Your task to perform on an android device: open the mobile data screen to see how much data has been used Image 0: 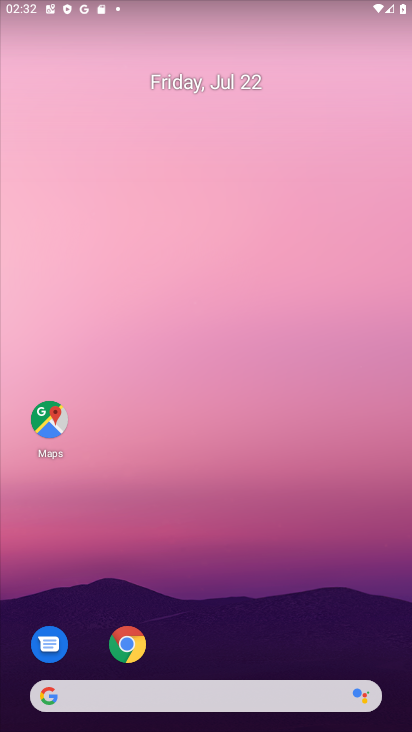
Step 0: drag from (213, 634) to (192, 31)
Your task to perform on an android device: open the mobile data screen to see how much data has been used Image 1: 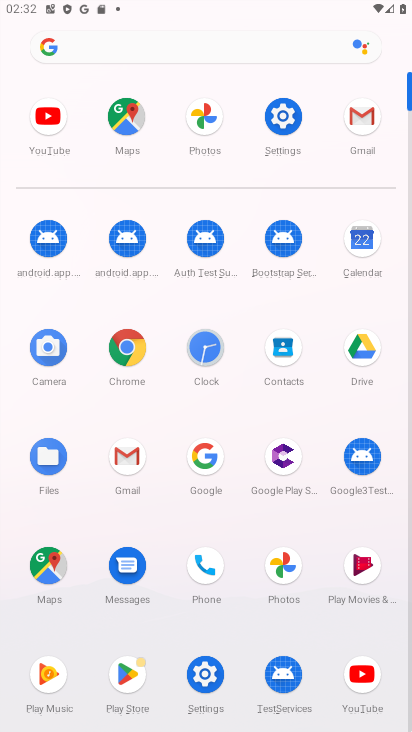
Step 1: click (281, 127)
Your task to perform on an android device: open the mobile data screen to see how much data has been used Image 2: 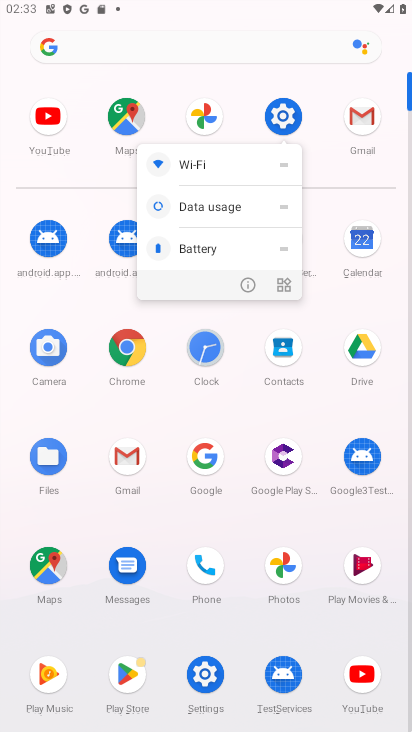
Step 2: click (292, 115)
Your task to perform on an android device: open the mobile data screen to see how much data has been used Image 3: 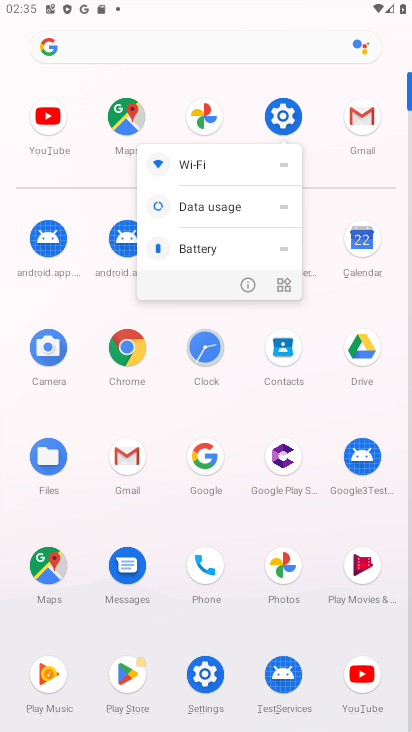
Step 3: click (277, 119)
Your task to perform on an android device: open the mobile data screen to see how much data has been used Image 4: 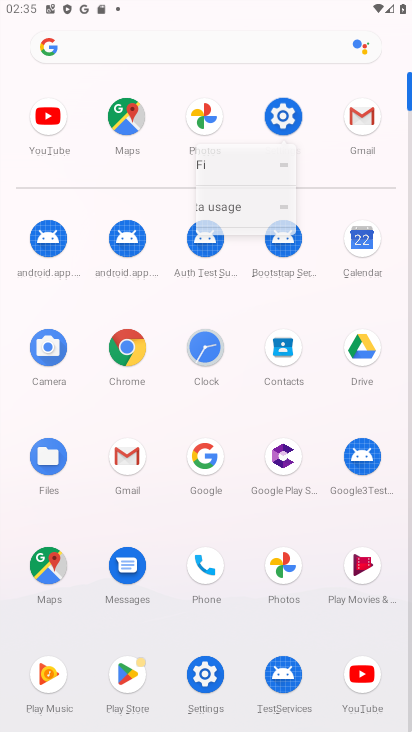
Step 4: click (277, 119)
Your task to perform on an android device: open the mobile data screen to see how much data has been used Image 5: 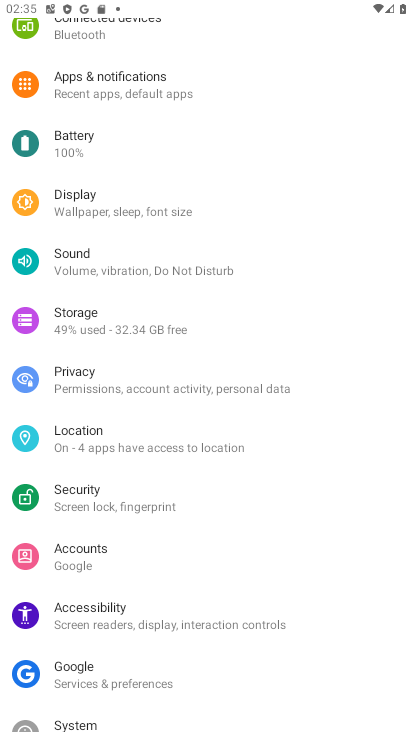
Step 5: drag from (276, 115) to (335, 366)
Your task to perform on an android device: open the mobile data screen to see how much data has been used Image 6: 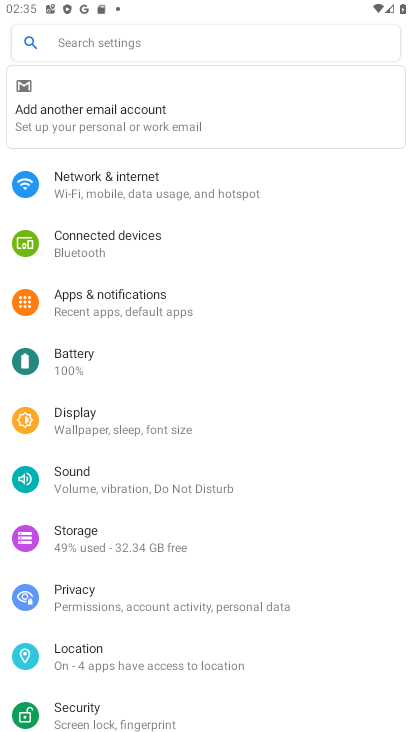
Step 6: click (228, 180)
Your task to perform on an android device: open the mobile data screen to see how much data has been used Image 7: 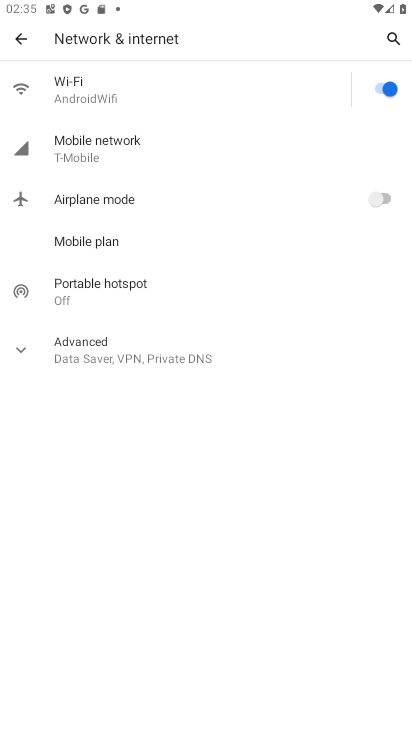
Step 7: click (130, 154)
Your task to perform on an android device: open the mobile data screen to see how much data has been used Image 8: 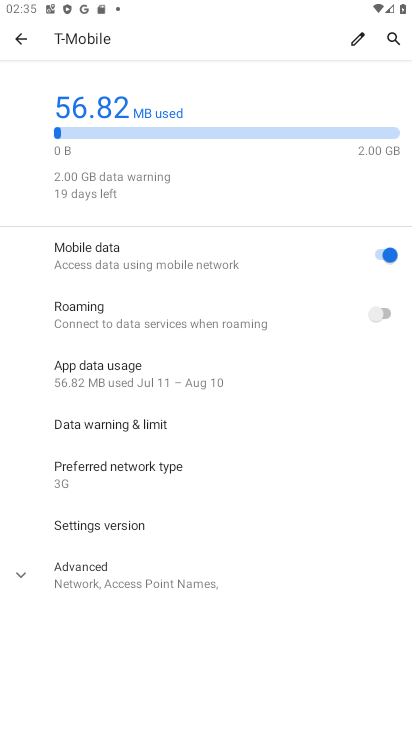
Step 8: task complete